Your task to perform on an android device: delete a single message in the gmail app Image 0: 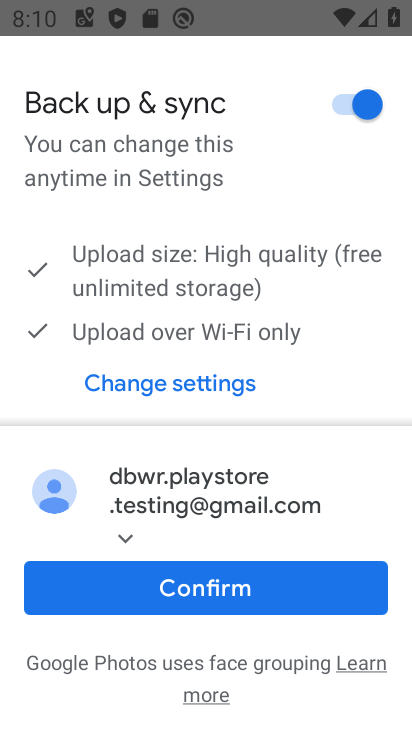
Step 0: press home button
Your task to perform on an android device: delete a single message in the gmail app Image 1: 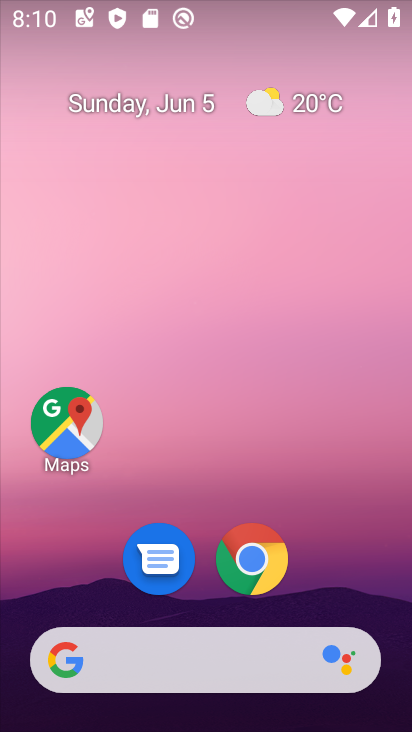
Step 1: drag from (221, 493) to (218, 240)
Your task to perform on an android device: delete a single message in the gmail app Image 2: 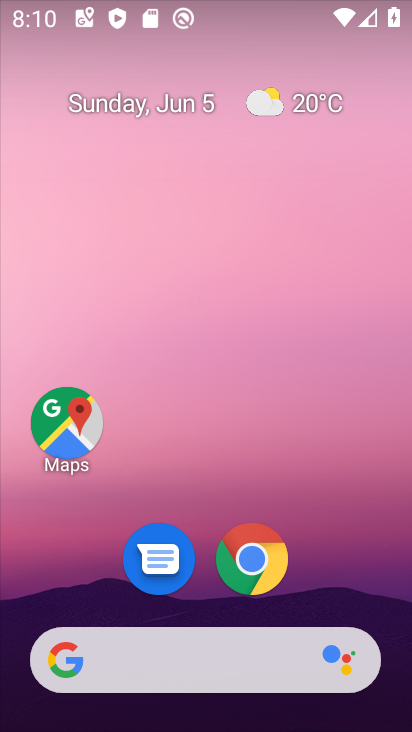
Step 2: drag from (180, 583) to (170, 227)
Your task to perform on an android device: delete a single message in the gmail app Image 3: 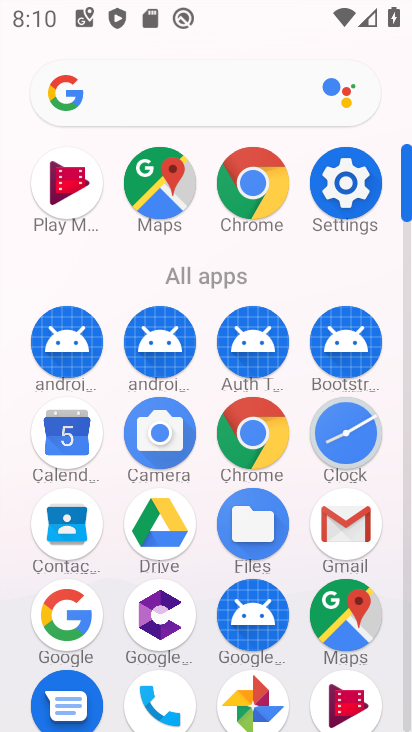
Step 3: click (346, 505)
Your task to perform on an android device: delete a single message in the gmail app Image 4: 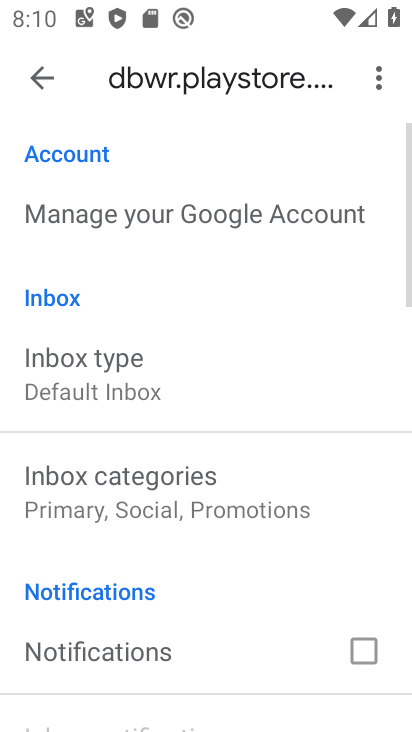
Step 4: click (33, 76)
Your task to perform on an android device: delete a single message in the gmail app Image 5: 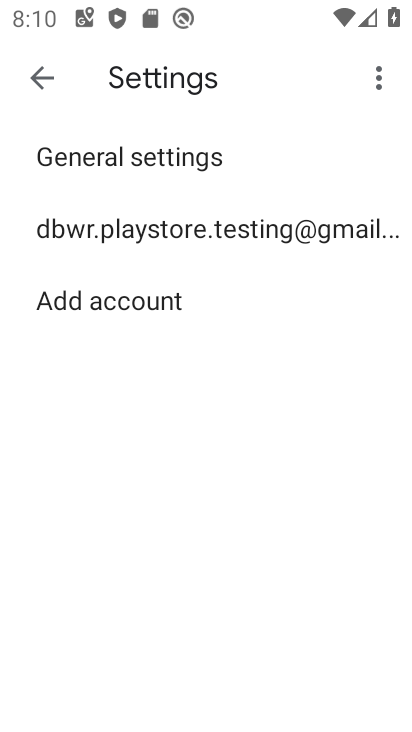
Step 5: click (32, 75)
Your task to perform on an android device: delete a single message in the gmail app Image 6: 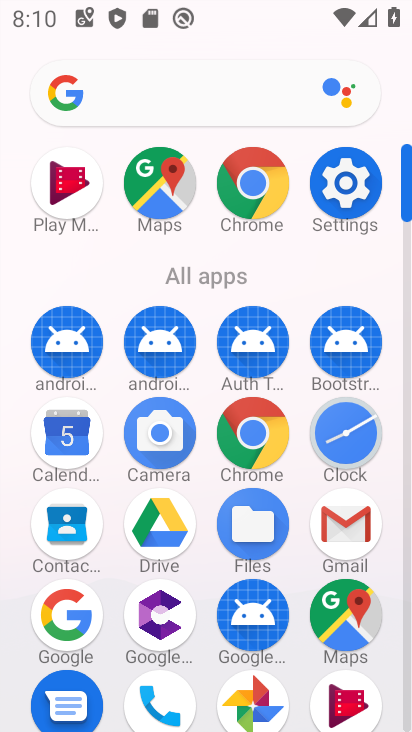
Step 6: click (331, 511)
Your task to perform on an android device: delete a single message in the gmail app Image 7: 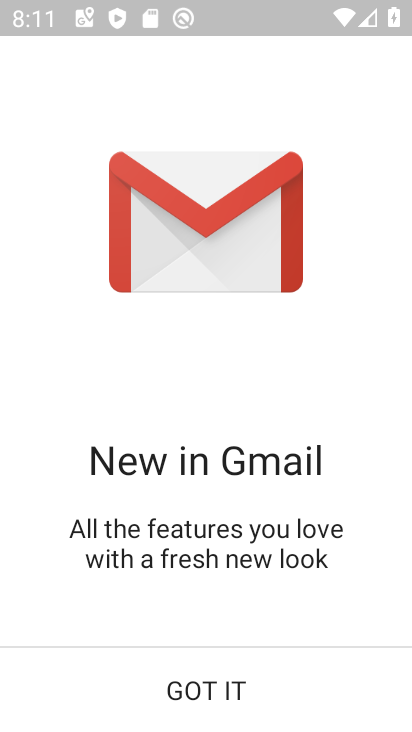
Step 7: click (151, 680)
Your task to perform on an android device: delete a single message in the gmail app Image 8: 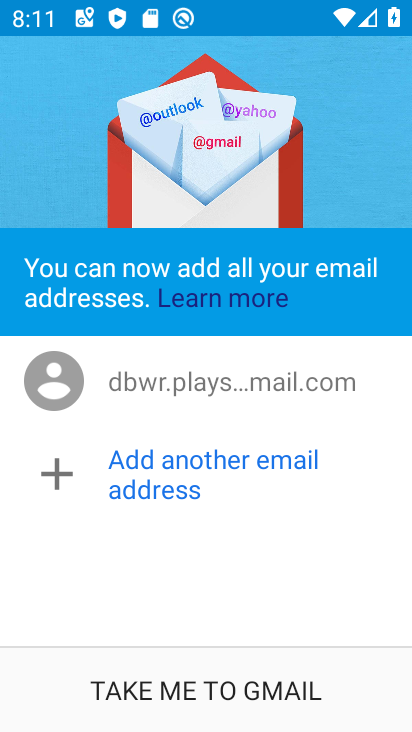
Step 8: click (203, 695)
Your task to perform on an android device: delete a single message in the gmail app Image 9: 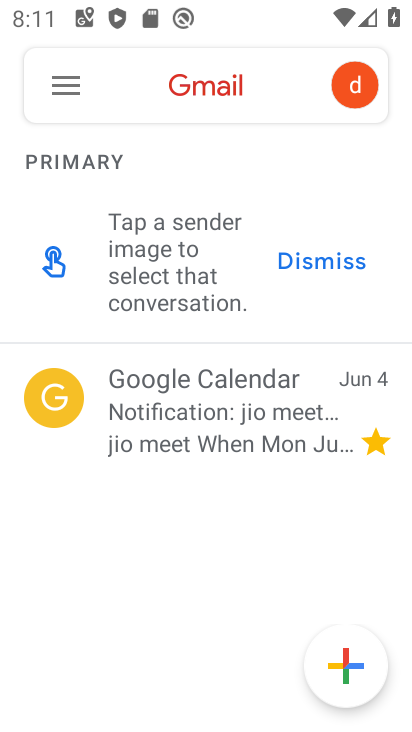
Step 9: click (59, 382)
Your task to perform on an android device: delete a single message in the gmail app Image 10: 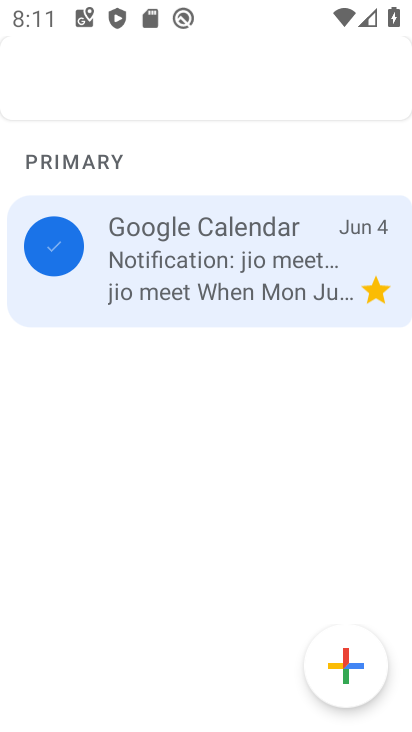
Step 10: click (53, 396)
Your task to perform on an android device: delete a single message in the gmail app Image 11: 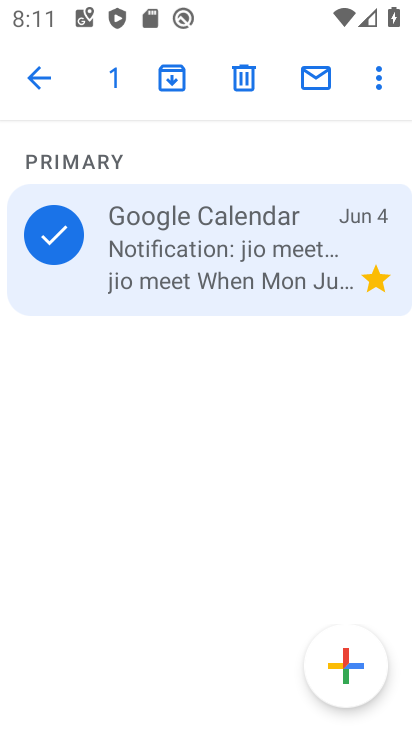
Step 11: click (245, 78)
Your task to perform on an android device: delete a single message in the gmail app Image 12: 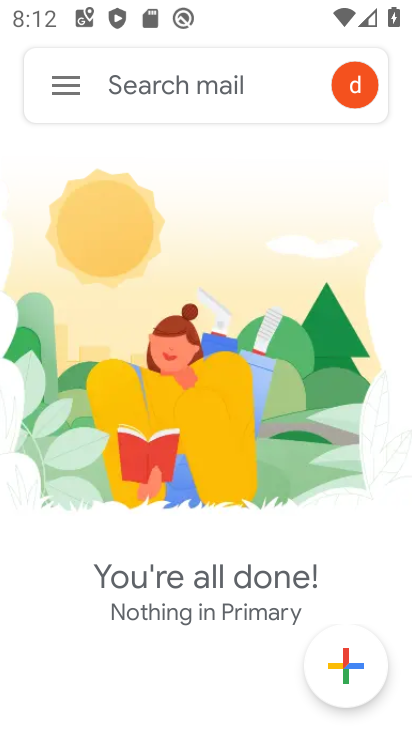
Step 12: task complete